Your task to perform on an android device: Open calendar and show me the second week of next month Image 0: 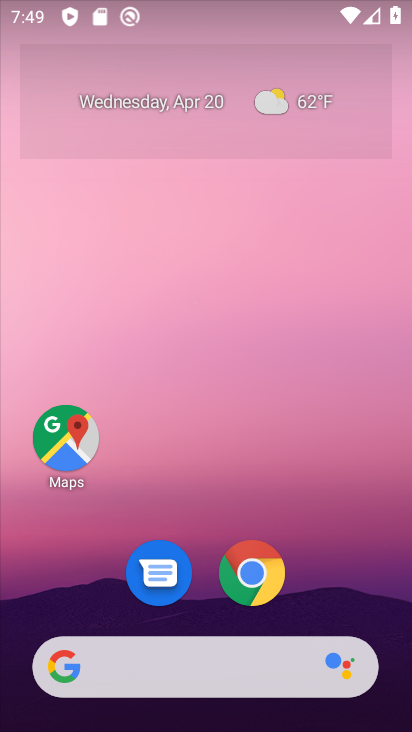
Step 0: drag from (273, 504) to (260, 141)
Your task to perform on an android device: Open calendar and show me the second week of next month Image 1: 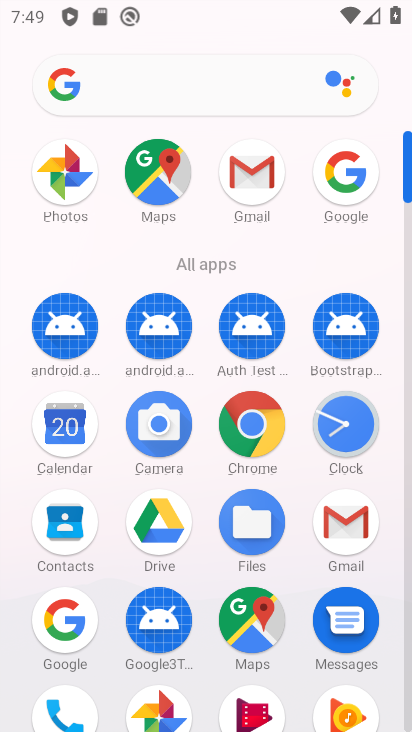
Step 1: click (80, 431)
Your task to perform on an android device: Open calendar and show me the second week of next month Image 2: 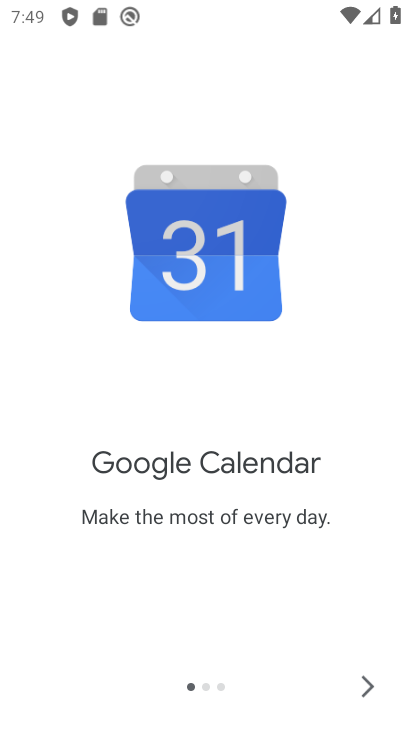
Step 2: click (374, 688)
Your task to perform on an android device: Open calendar and show me the second week of next month Image 3: 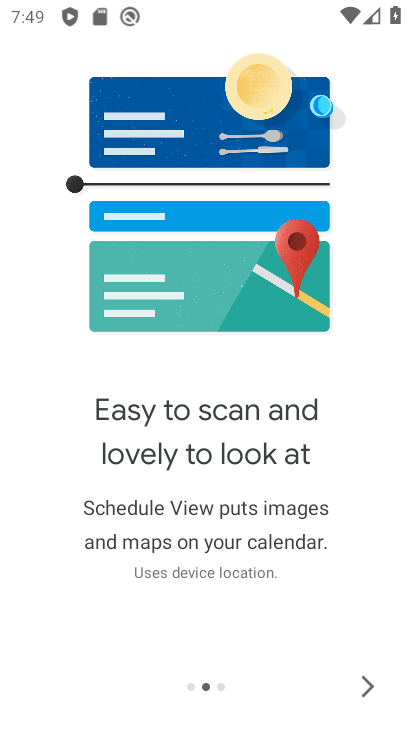
Step 3: click (374, 688)
Your task to perform on an android device: Open calendar and show me the second week of next month Image 4: 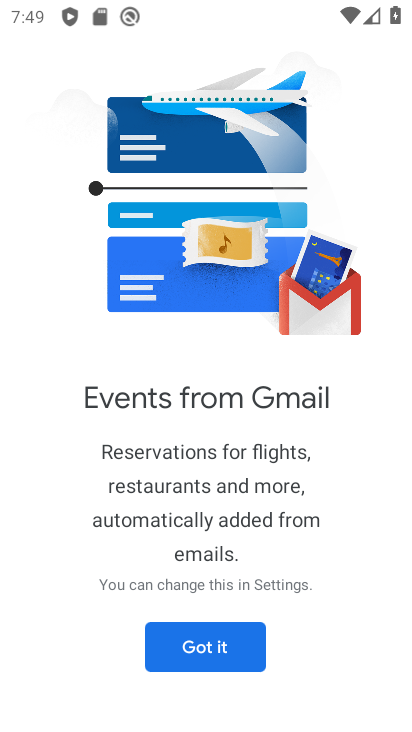
Step 4: click (184, 664)
Your task to perform on an android device: Open calendar and show me the second week of next month Image 5: 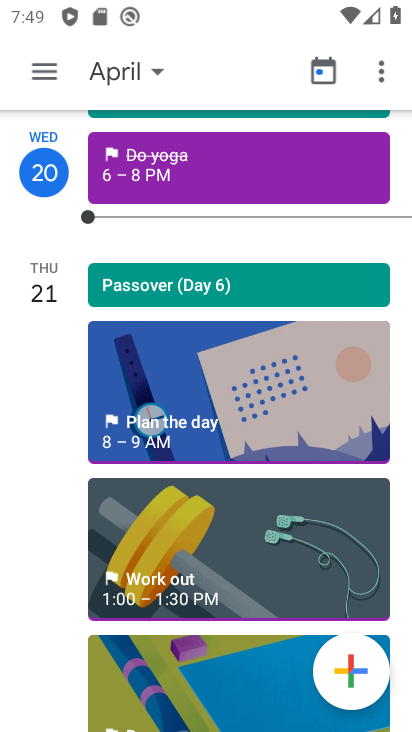
Step 5: click (144, 70)
Your task to perform on an android device: Open calendar and show me the second week of next month Image 6: 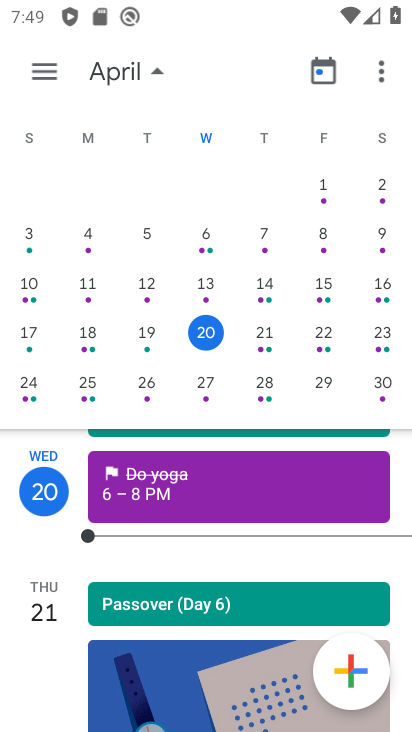
Step 6: drag from (395, 301) to (81, 118)
Your task to perform on an android device: Open calendar and show me the second week of next month Image 7: 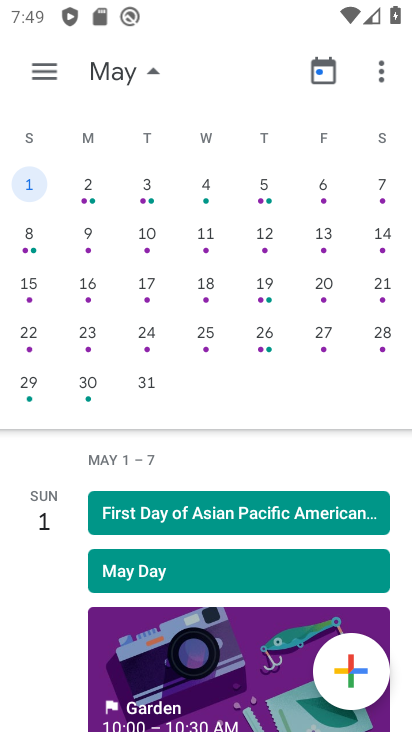
Step 7: click (150, 76)
Your task to perform on an android device: Open calendar and show me the second week of next month Image 8: 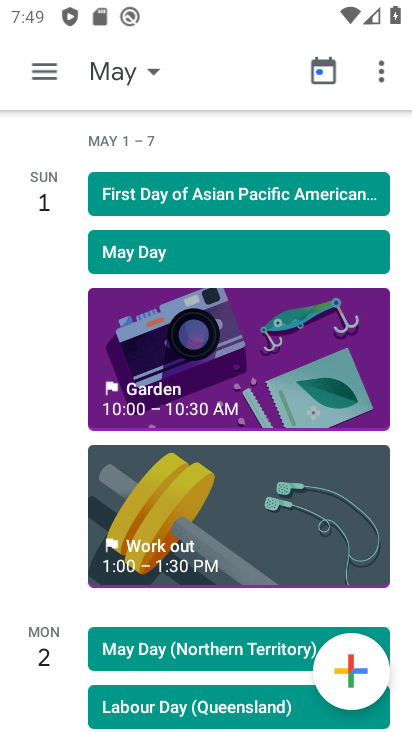
Step 8: click (53, 69)
Your task to perform on an android device: Open calendar and show me the second week of next month Image 9: 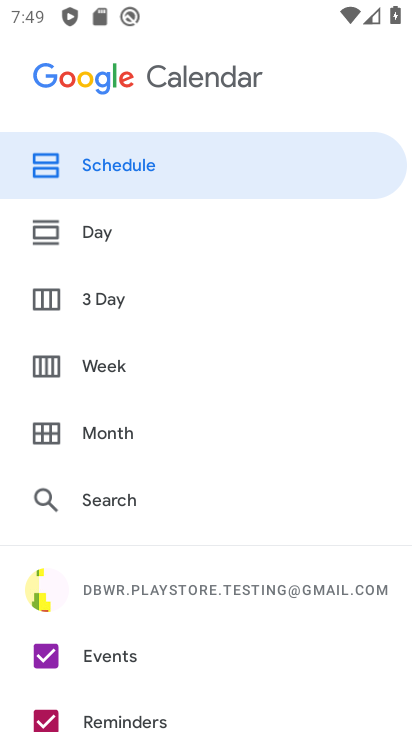
Step 9: click (134, 355)
Your task to perform on an android device: Open calendar and show me the second week of next month Image 10: 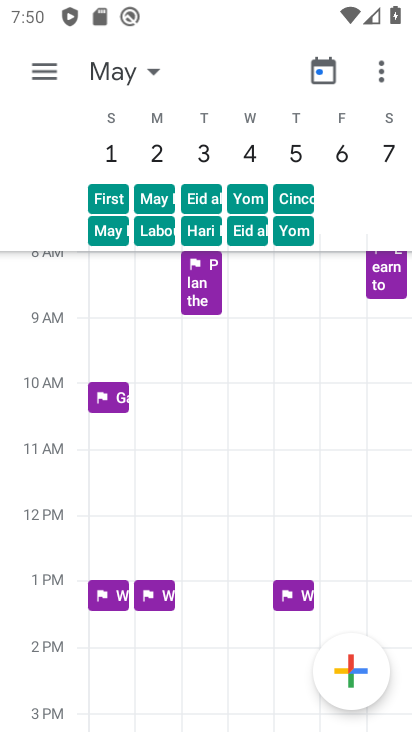
Step 10: task complete